Your task to perform on an android device: all mails in gmail Image 0: 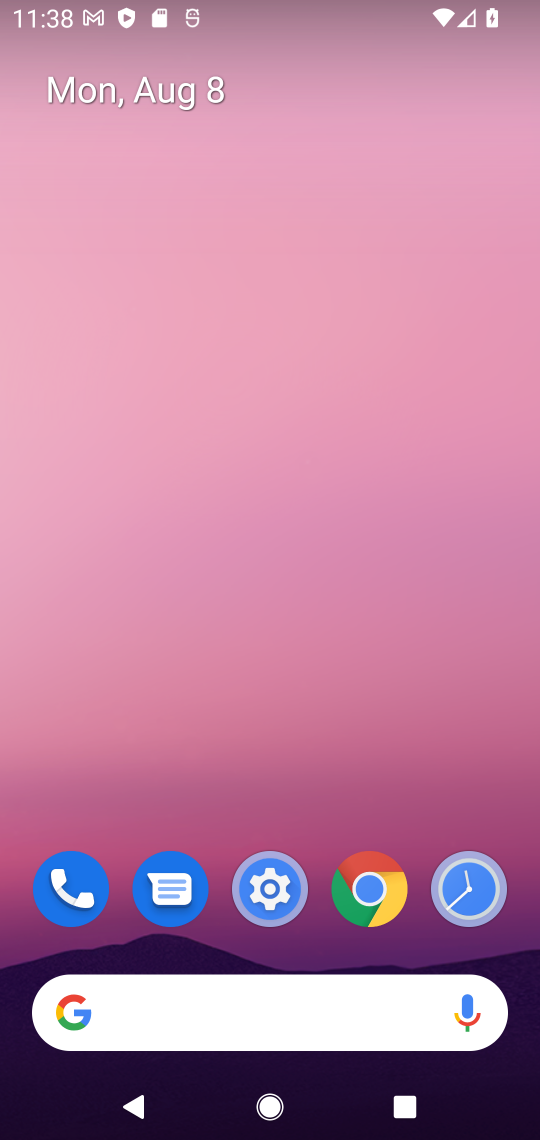
Step 0: press home button
Your task to perform on an android device: all mails in gmail Image 1: 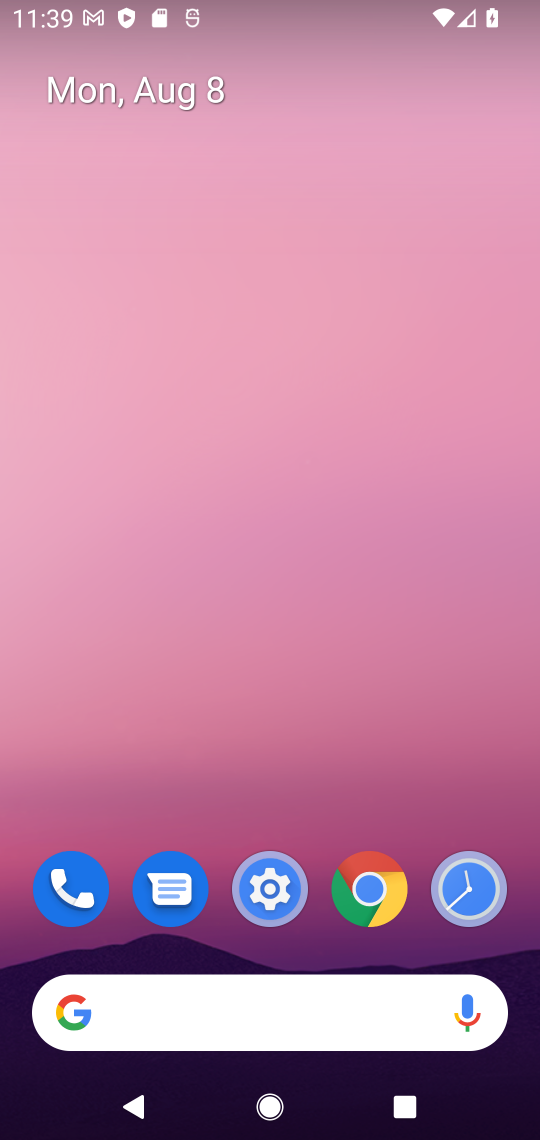
Step 1: drag from (420, 840) to (349, 151)
Your task to perform on an android device: all mails in gmail Image 2: 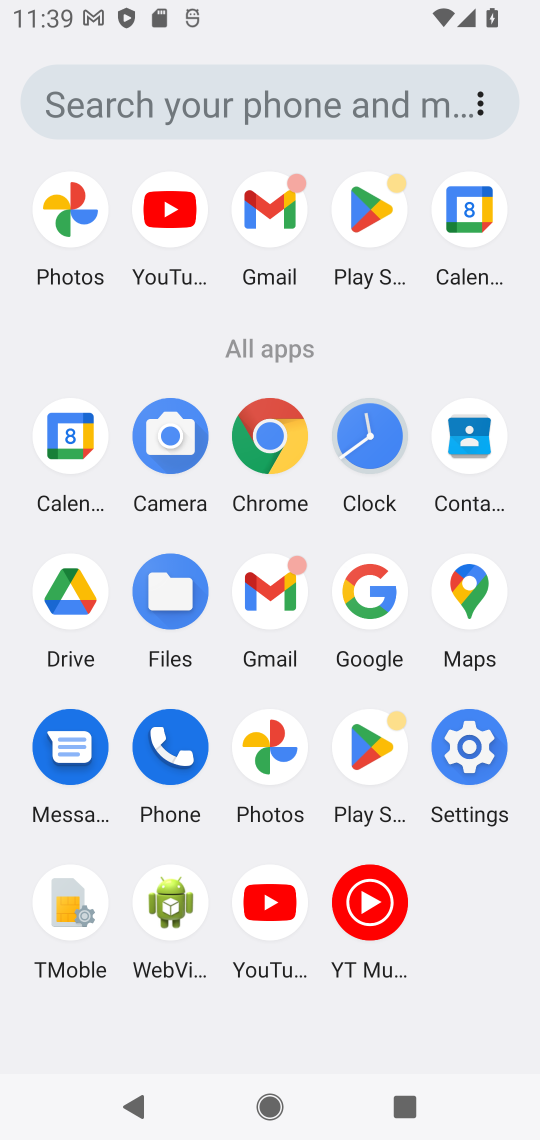
Step 2: click (268, 600)
Your task to perform on an android device: all mails in gmail Image 3: 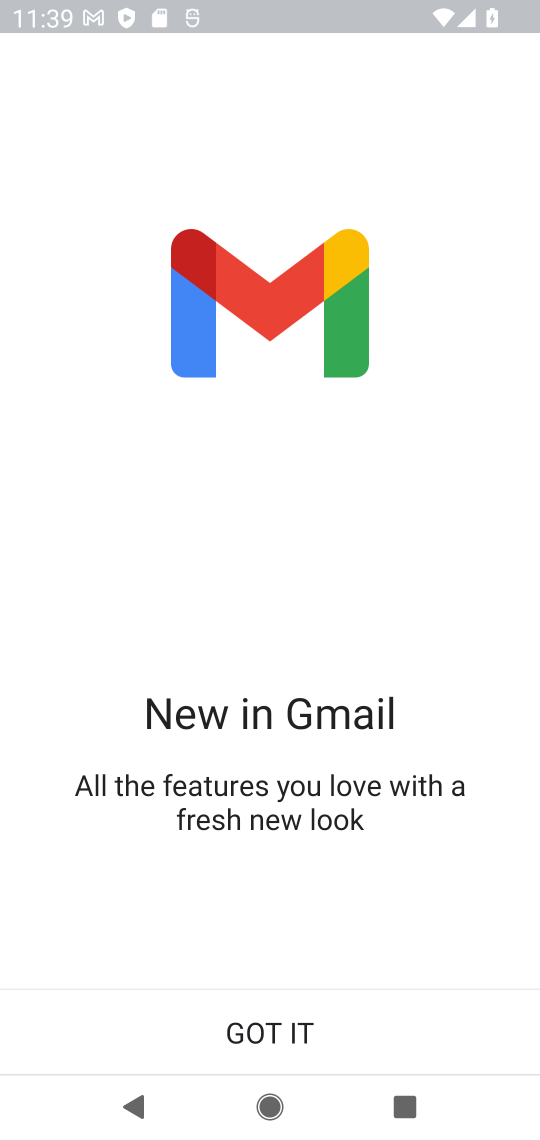
Step 3: click (335, 1033)
Your task to perform on an android device: all mails in gmail Image 4: 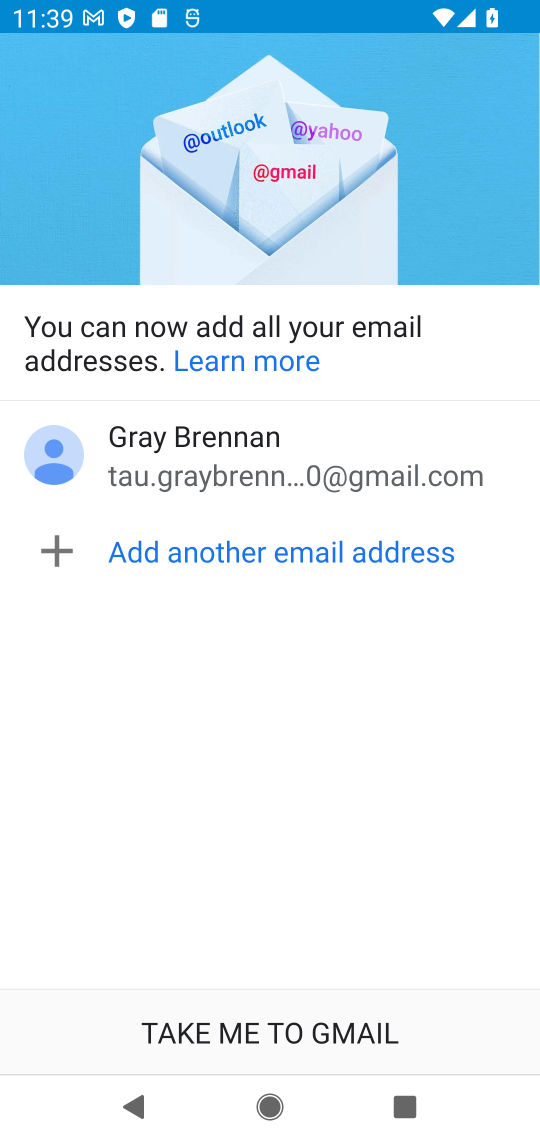
Step 4: click (381, 1030)
Your task to perform on an android device: all mails in gmail Image 5: 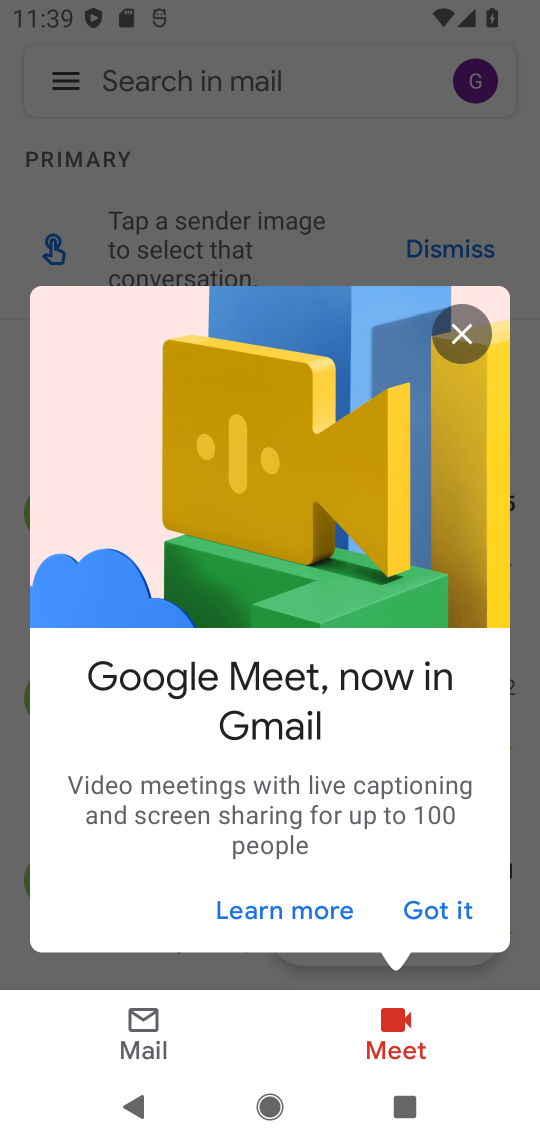
Step 5: click (466, 337)
Your task to perform on an android device: all mails in gmail Image 6: 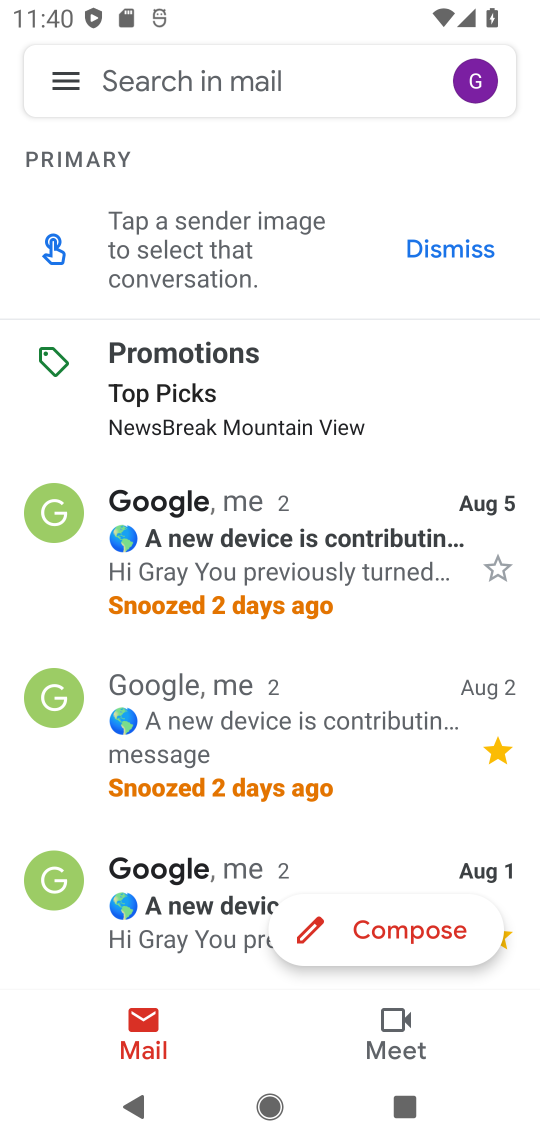
Step 6: click (66, 85)
Your task to perform on an android device: all mails in gmail Image 7: 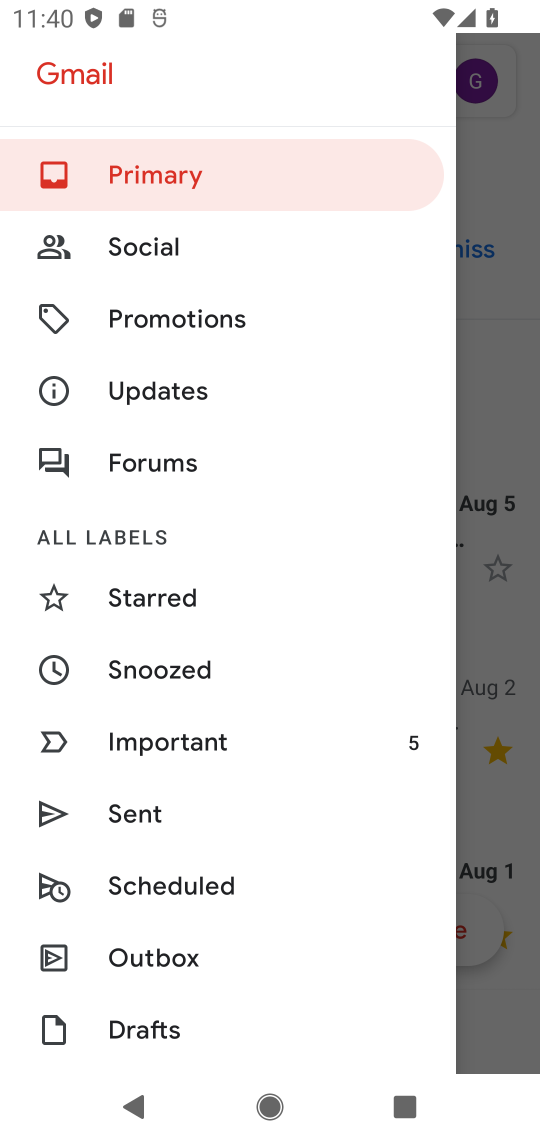
Step 7: drag from (276, 785) to (333, 357)
Your task to perform on an android device: all mails in gmail Image 8: 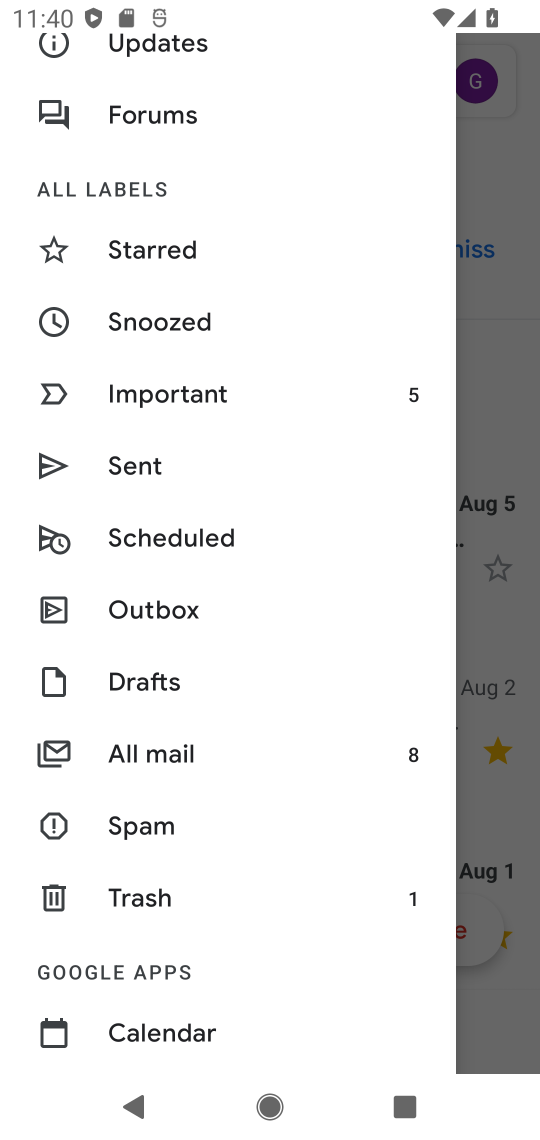
Step 8: click (159, 759)
Your task to perform on an android device: all mails in gmail Image 9: 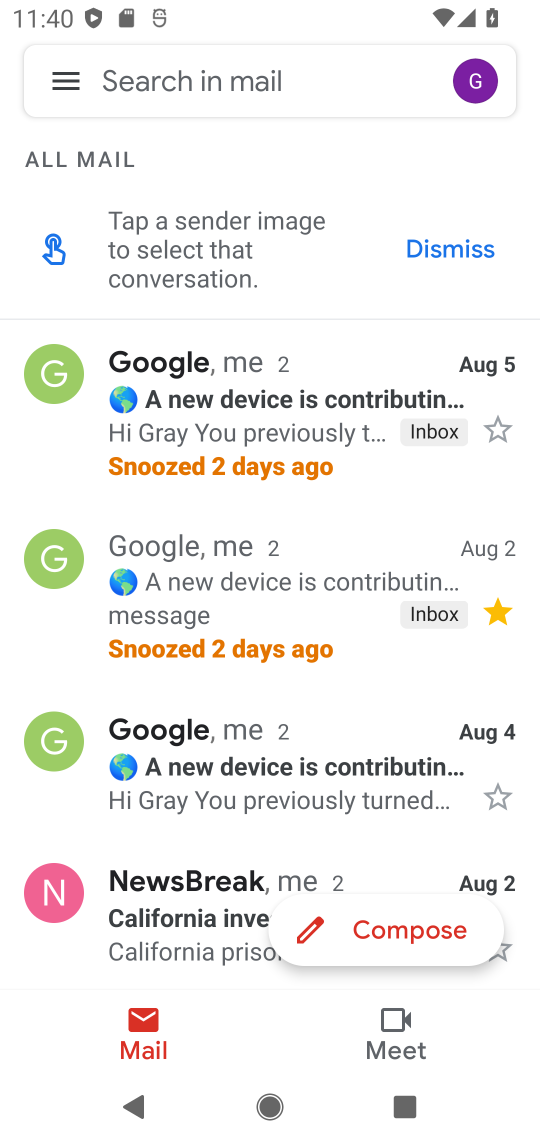
Step 9: task complete